Your task to perform on an android device: Open privacy settings Image 0: 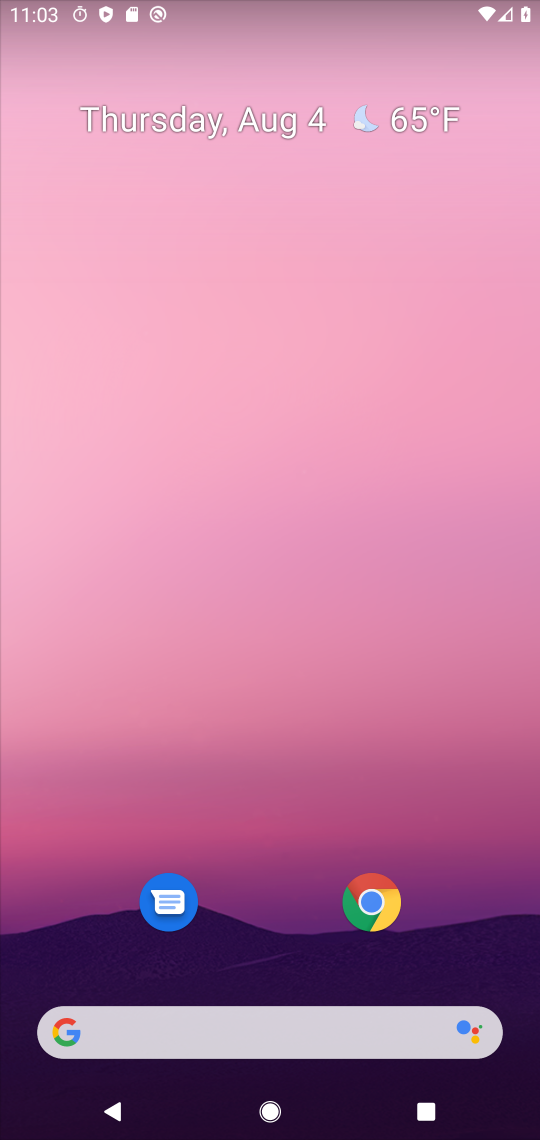
Step 0: press home button
Your task to perform on an android device: Open privacy settings Image 1: 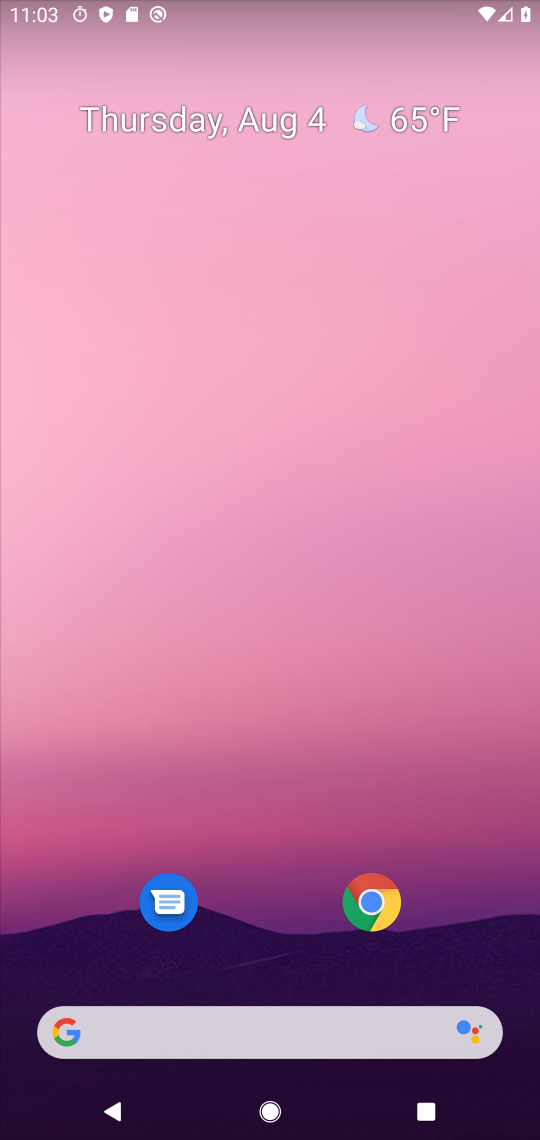
Step 1: drag from (332, 960) to (326, 325)
Your task to perform on an android device: Open privacy settings Image 2: 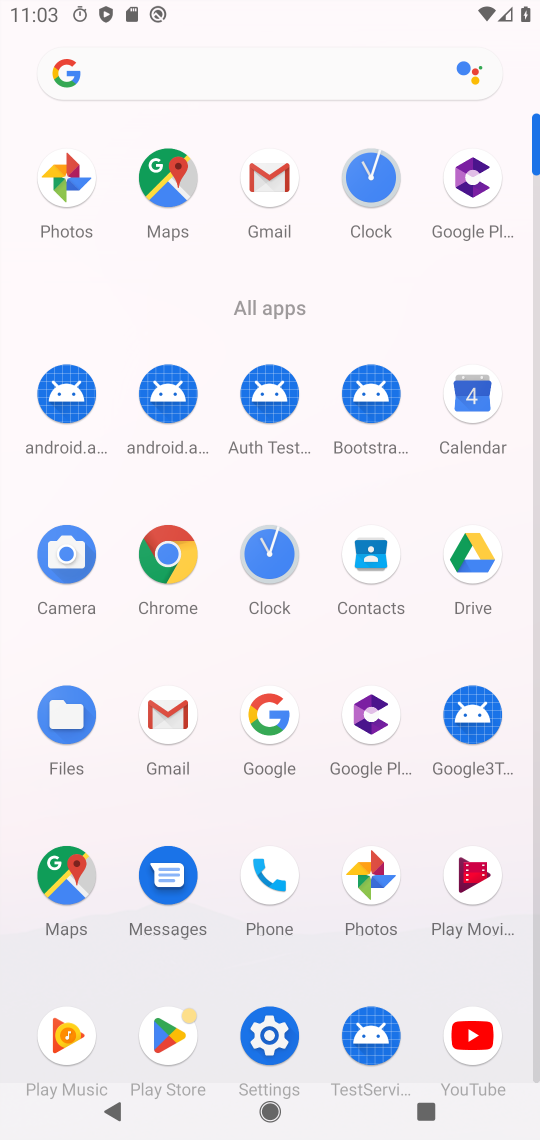
Step 2: click (262, 1048)
Your task to perform on an android device: Open privacy settings Image 3: 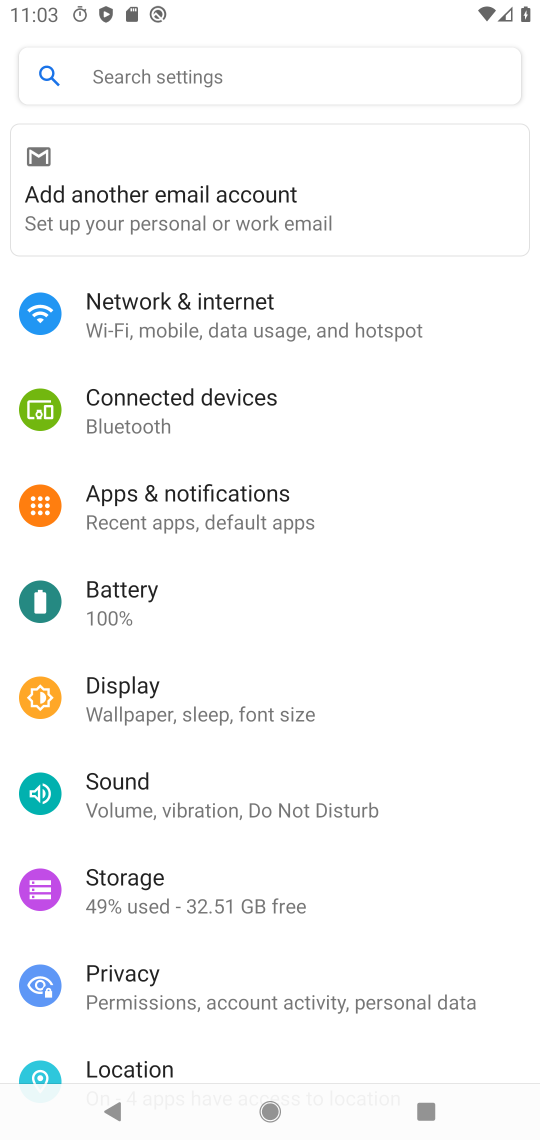
Step 3: click (156, 968)
Your task to perform on an android device: Open privacy settings Image 4: 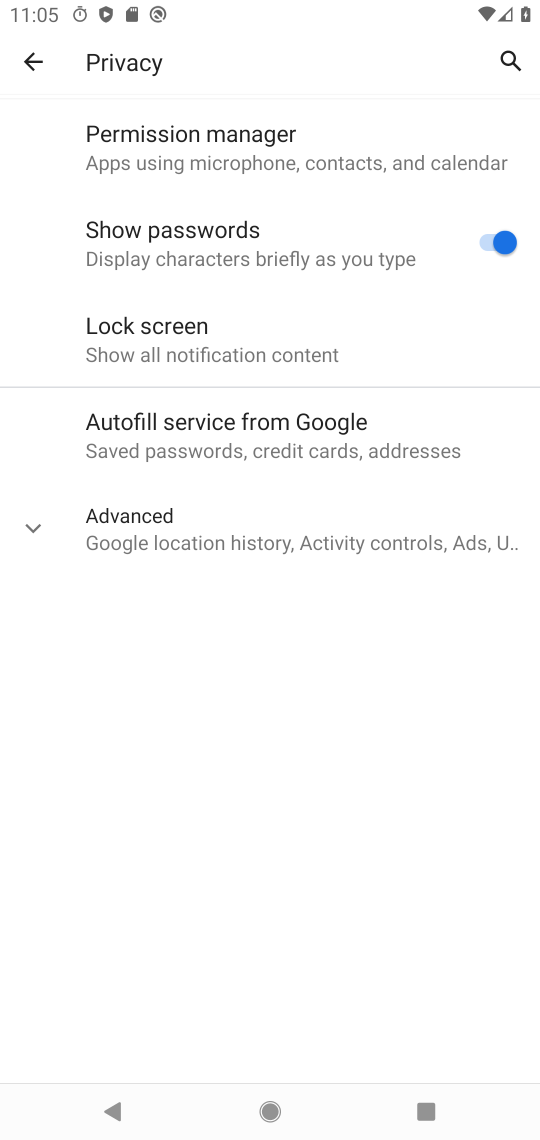
Step 4: task complete